Your task to perform on an android device: turn off data saver in the chrome app Image 0: 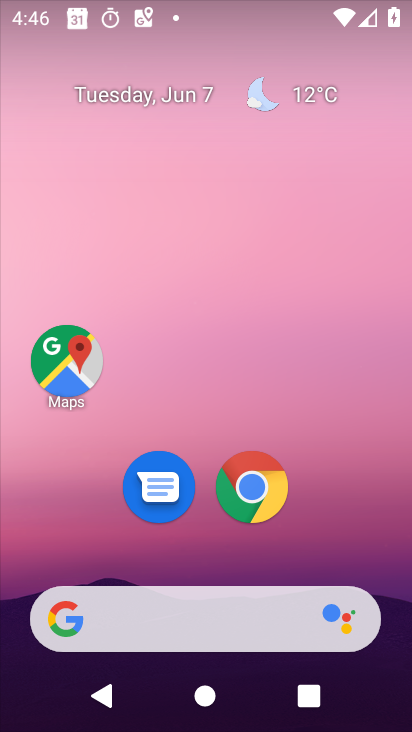
Step 0: click (234, 484)
Your task to perform on an android device: turn off data saver in the chrome app Image 1: 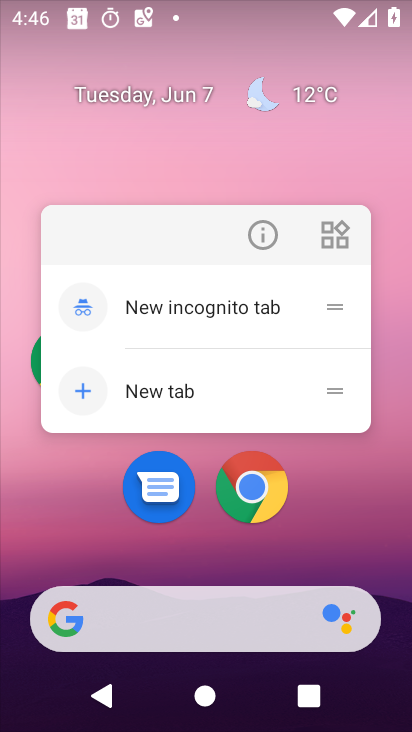
Step 1: click (245, 483)
Your task to perform on an android device: turn off data saver in the chrome app Image 2: 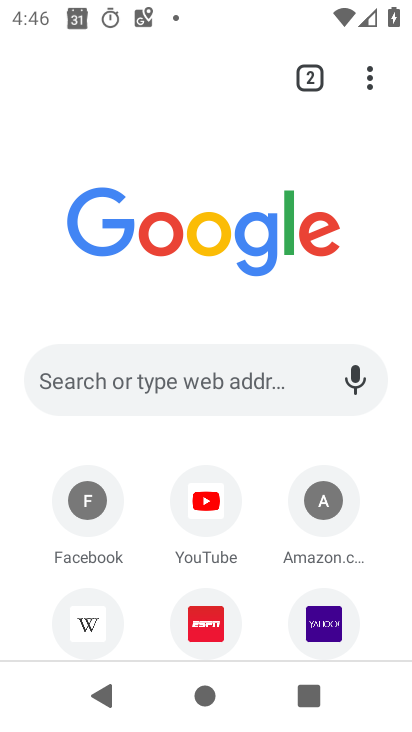
Step 2: drag from (369, 72) to (159, 534)
Your task to perform on an android device: turn off data saver in the chrome app Image 3: 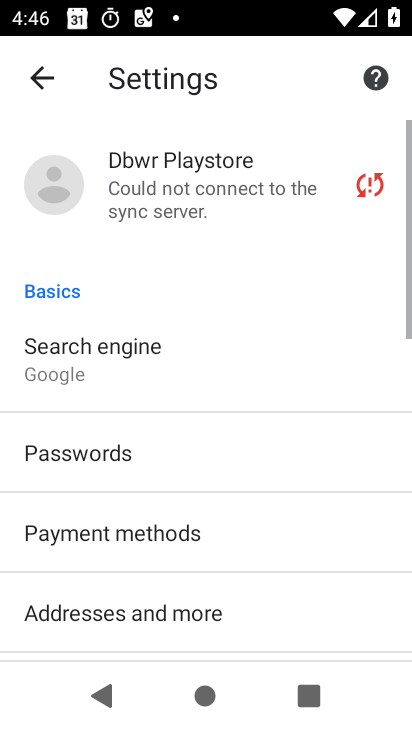
Step 3: drag from (137, 601) to (181, 121)
Your task to perform on an android device: turn off data saver in the chrome app Image 4: 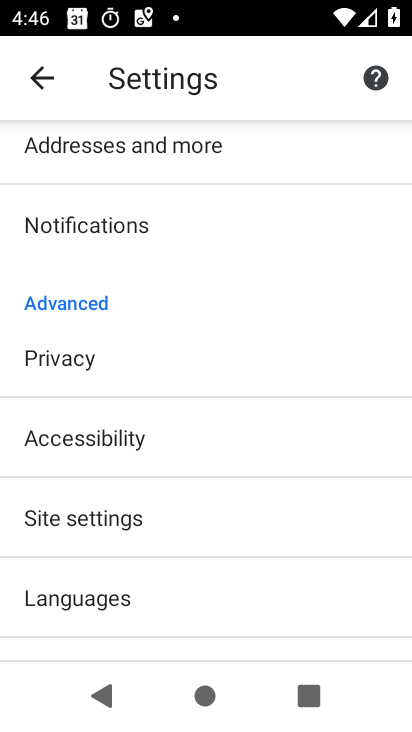
Step 4: drag from (72, 573) to (150, 204)
Your task to perform on an android device: turn off data saver in the chrome app Image 5: 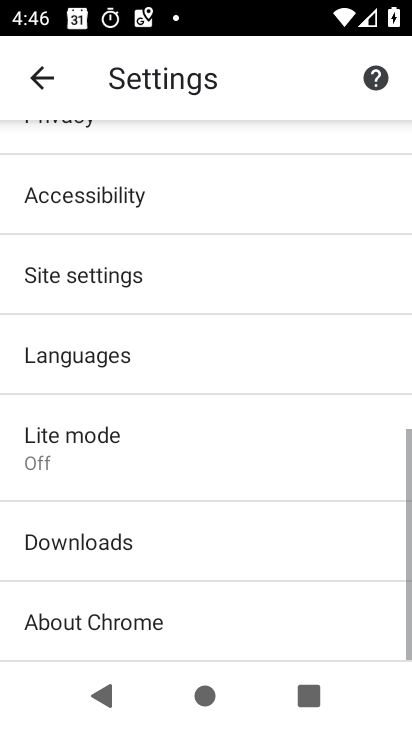
Step 5: click (123, 450)
Your task to perform on an android device: turn off data saver in the chrome app Image 6: 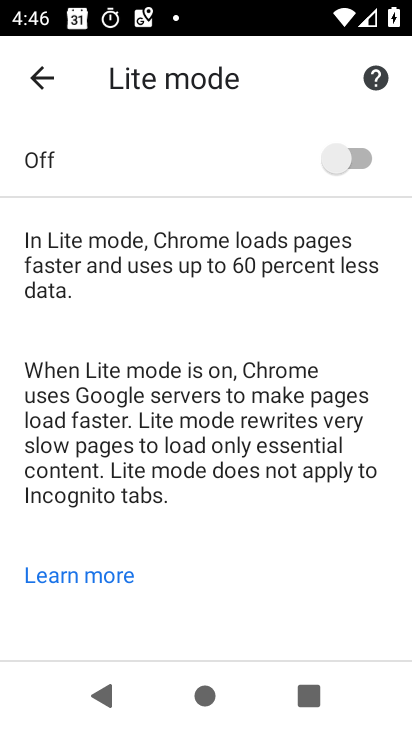
Step 6: task complete